Your task to perform on an android device: Open Yahoo.com Image 0: 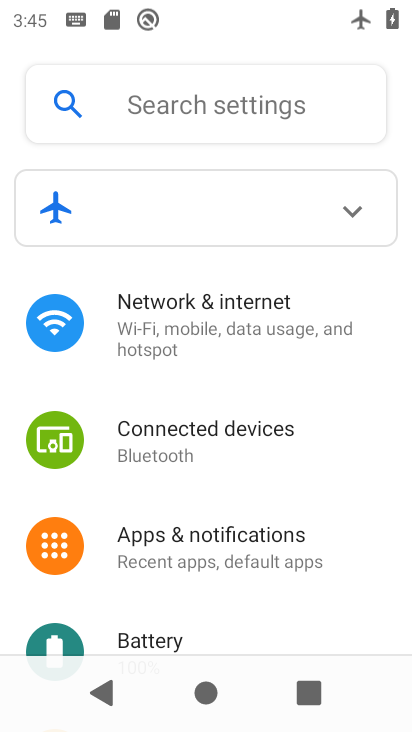
Step 0: press home button
Your task to perform on an android device: Open Yahoo.com Image 1: 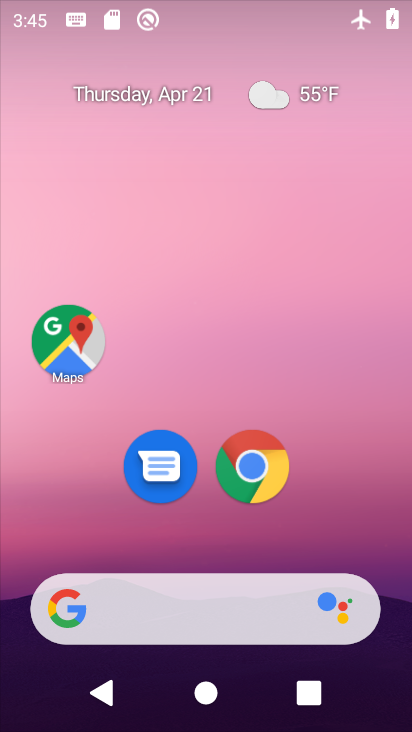
Step 1: drag from (195, 556) to (250, 174)
Your task to perform on an android device: Open Yahoo.com Image 2: 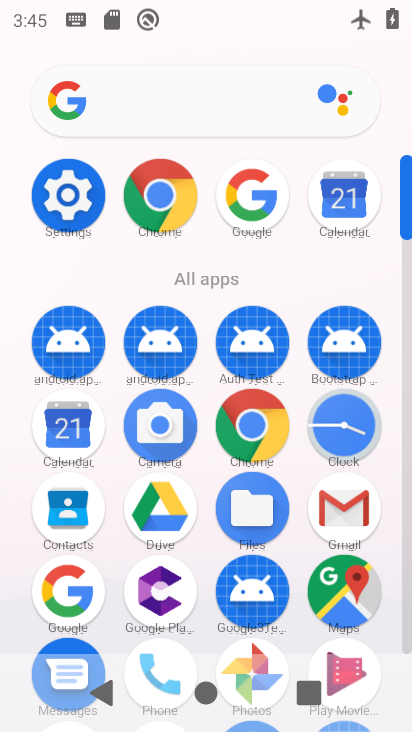
Step 2: drag from (202, 566) to (199, 278)
Your task to perform on an android device: Open Yahoo.com Image 3: 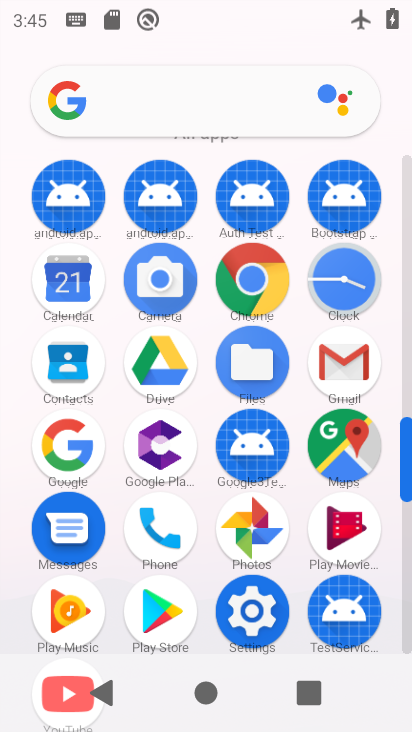
Step 3: click (266, 277)
Your task to perform on an android device: Open Yahoo.com Image 4: 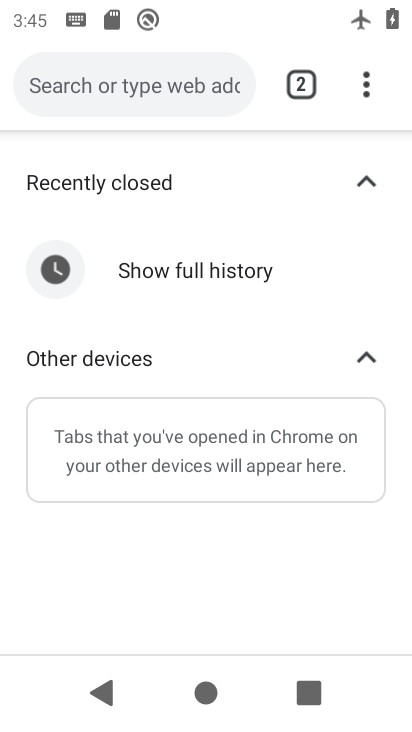
Step 4: click (304, 107)
Your task to perform on an android device: Open Yahoo.com Image 5: 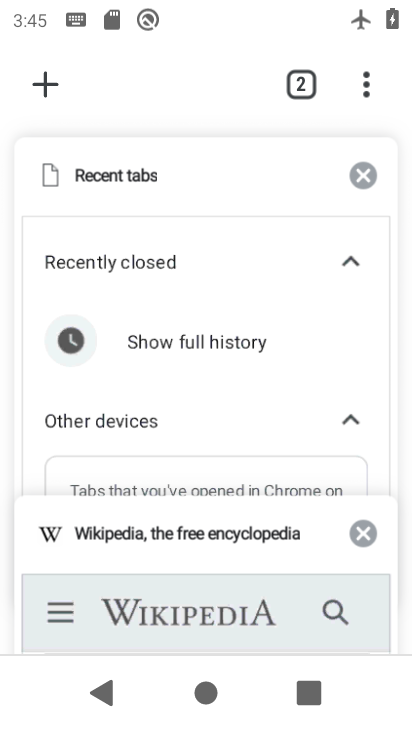
Step 5: click (201, 193)
Your task to perform on an android device: Open Yahoo.com Image 6: 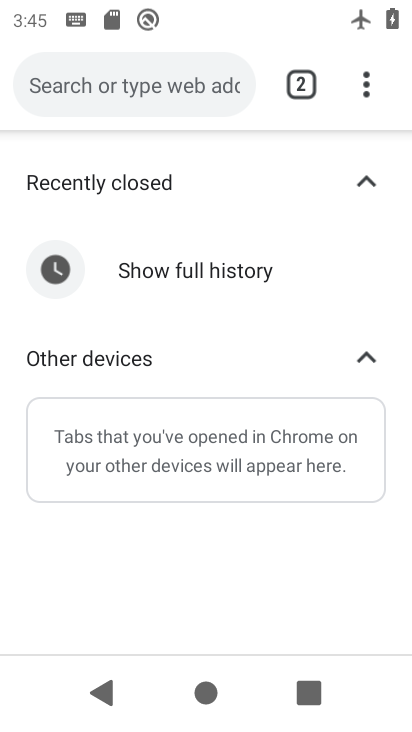
Step 6: click (319, 77)
Your task to perform on an android device: Open Yahoo.com Image 7: 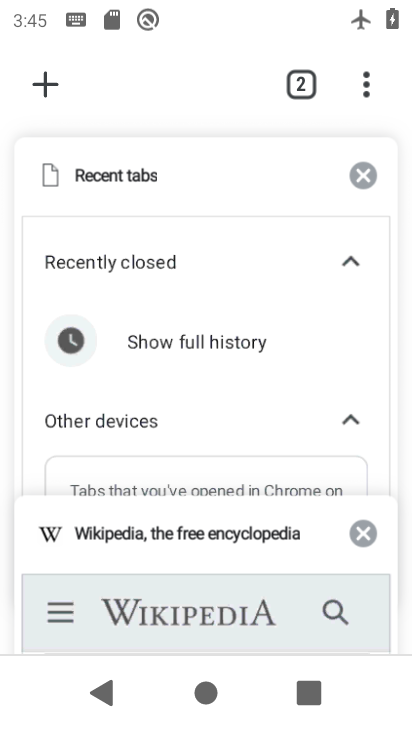
Step 7: click (37, 78)
Your task to perform on an android device: Open Yahoo.com Image 8: 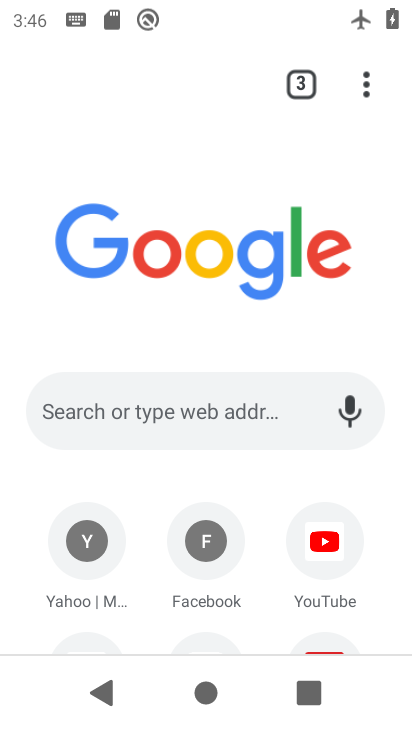
Step 8: drag from (258, 491) to (226, 218)
Your task to perform on an android device: Open Yahoo.com Image 9: 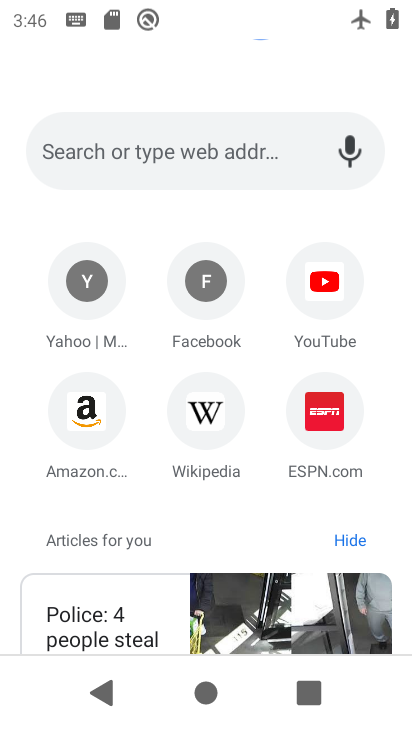
Step 9: click (97, 275)
Your task to perform on an android device: Open Yahoo.com Image 10: 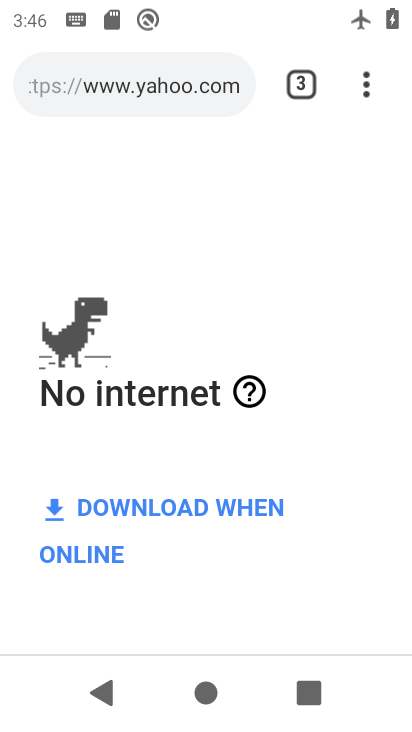
Step 10: task complete